Your task to perform on an android device: check android version Image 0: 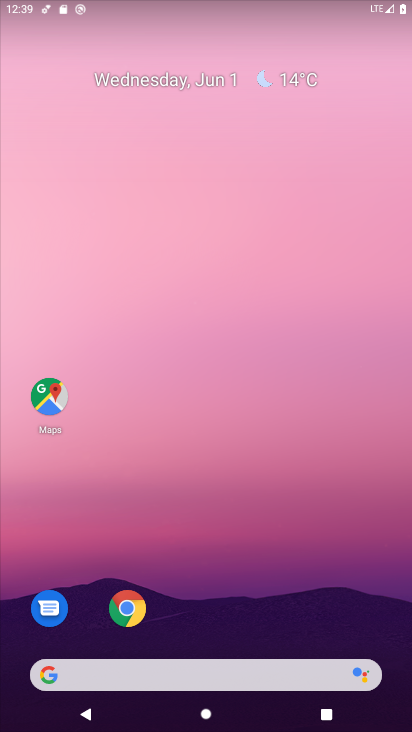
Step 0: drag from (217, 636) to (309, 13)
Your task to perform on an android device: check android version Image 1: 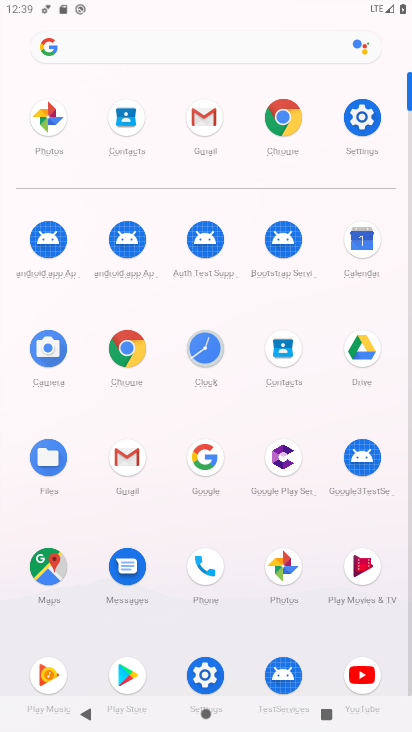
Step 1: click (371, 141)
Your task to perform on an android device: check android version Image 2: 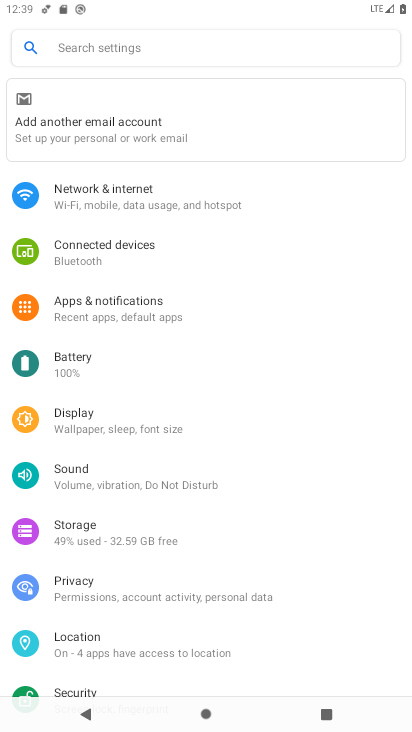
Step 2: drag from (139, 628) to (199, 259)
Your task to perform on an android device: check android version Image 3: 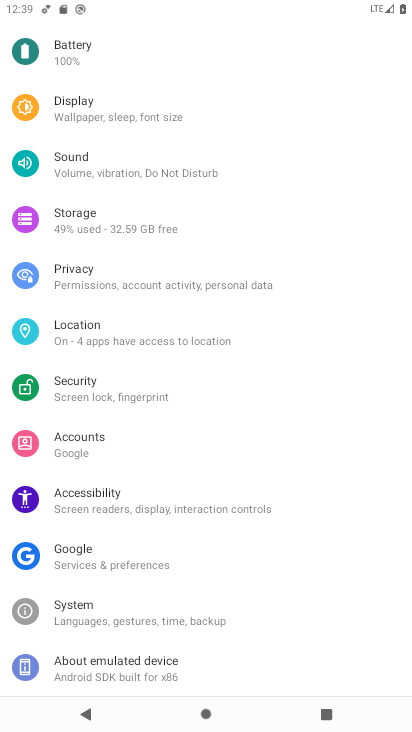
Step 3: click (120, 670)
Your task to perform on an android device: check android version Image 4: 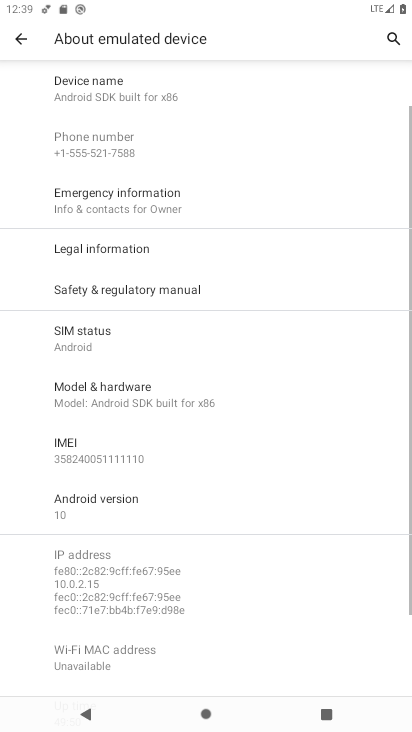
Step 4: click (131, 500)
Your task to perform on an android device: check android version Image 5: 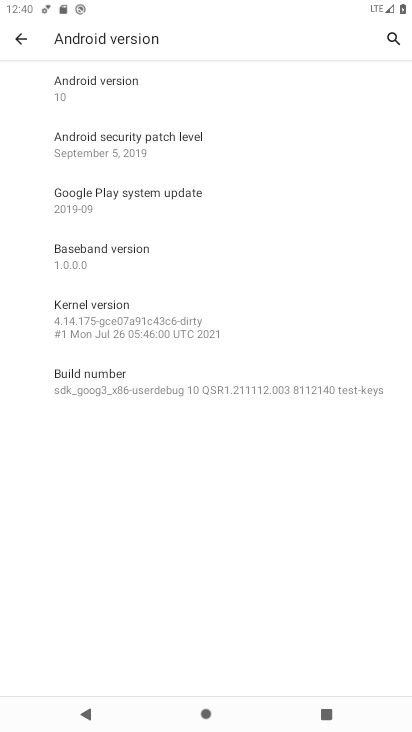
Step 5: task complete